Your task to perform on an android device: Open eBay Image 0: 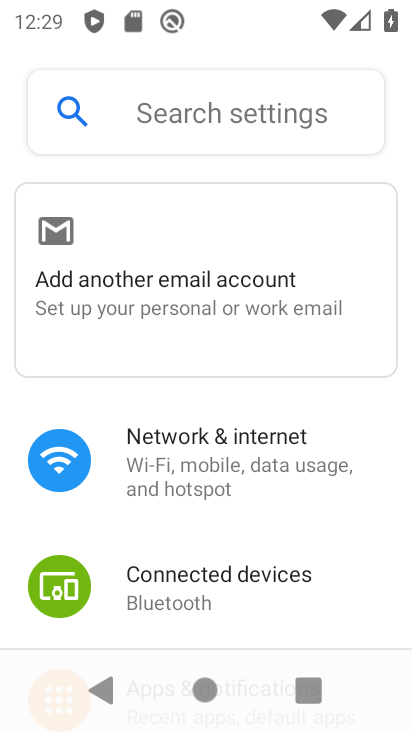
Step 0: press home button
Your task to perform on an android device: Open eBay Image 1: 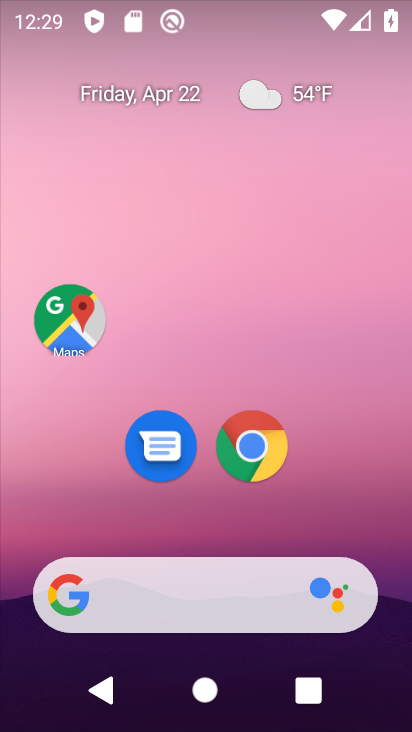
Step 1: click (244, 445)
Your task to perform on an android device: Open eBay Image 2: 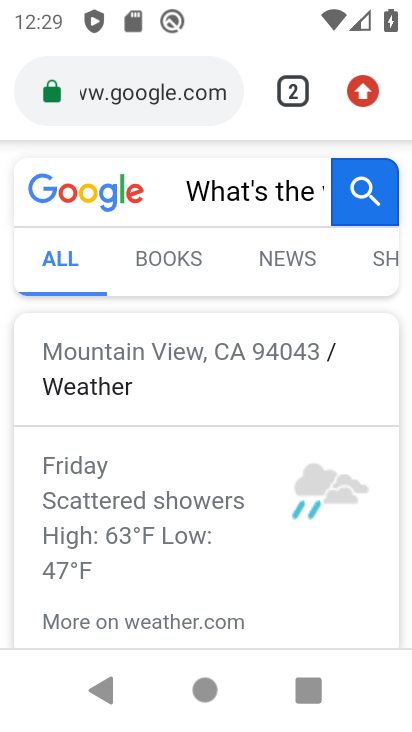
Step 2: click (159, 100)
Your task to perform on an android device: Open eBay Image 3: 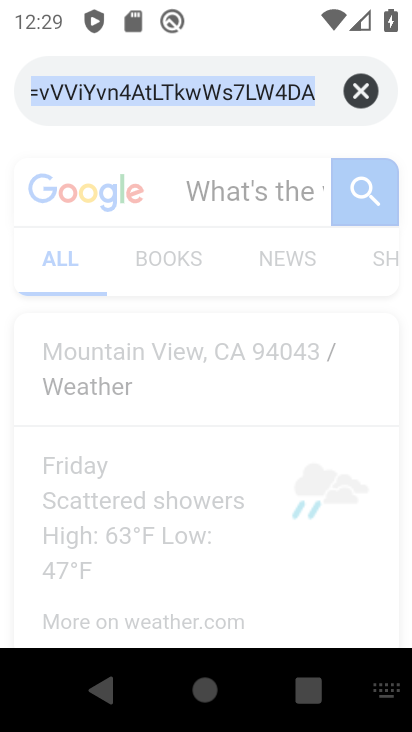
Step 3: type "eBay"
Your task to perform on an android device: Open eBay Image 4: 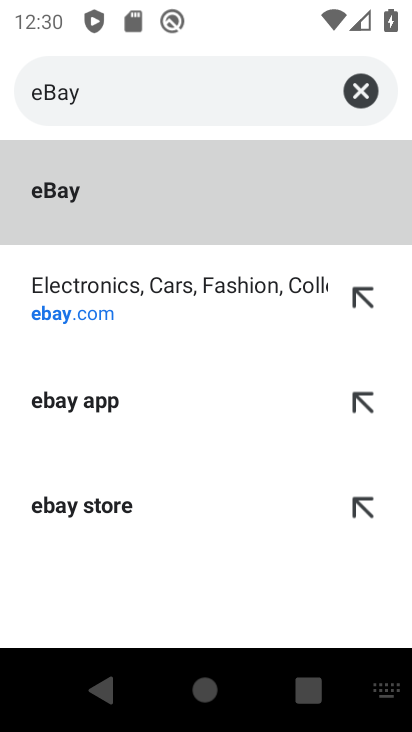
Step 4: click (82, 313)
Your task to perform on an android device: Open eBay Image 5: 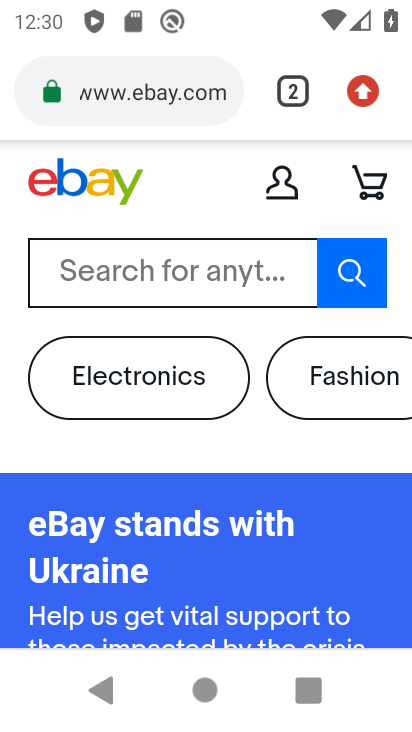
Step 5: task complete